Your task to perform on an android device: Search for sushi restaurants on Maps Image 0: 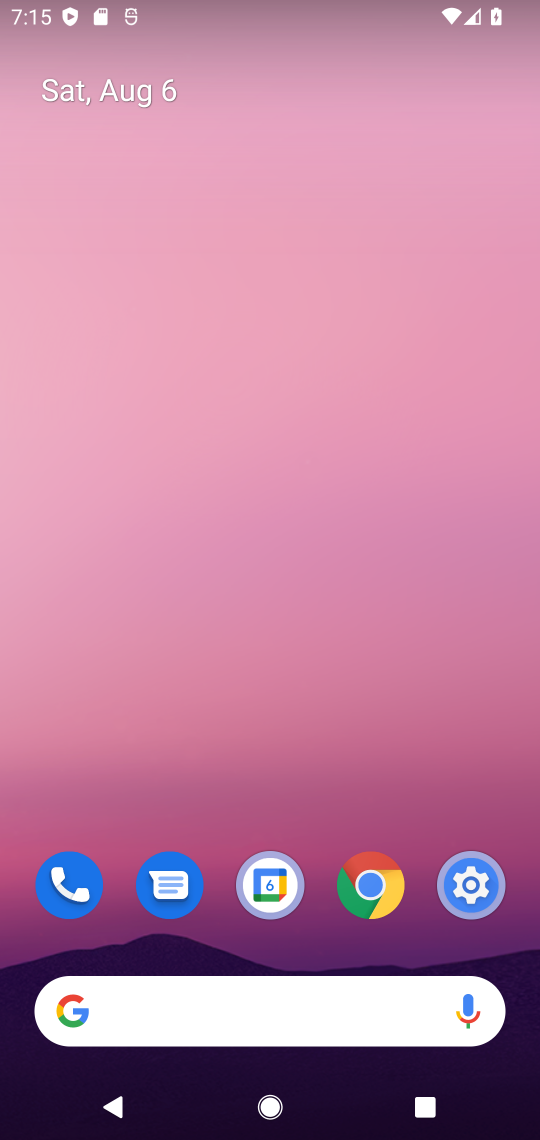
Step 0: drag from (176, 888) to (19, 773)
Your task to perform on an android device: Search for sushi restaurants on Maps Image 1: 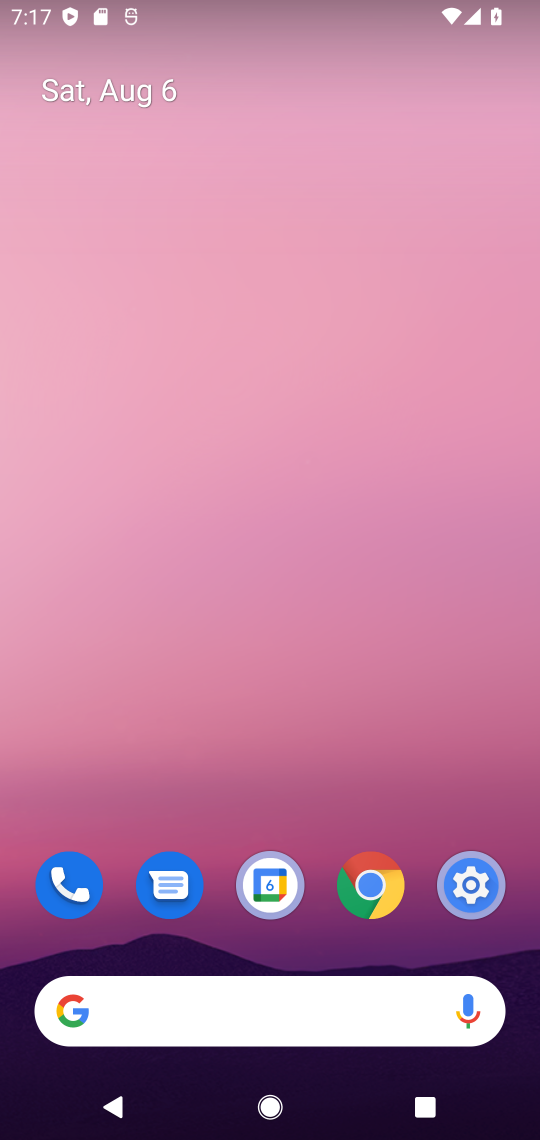
Step 1: drag from (318, 810) to (248, 0)
Your task to perform on an android device: Search for sushi restaurants on Maps Image 2: 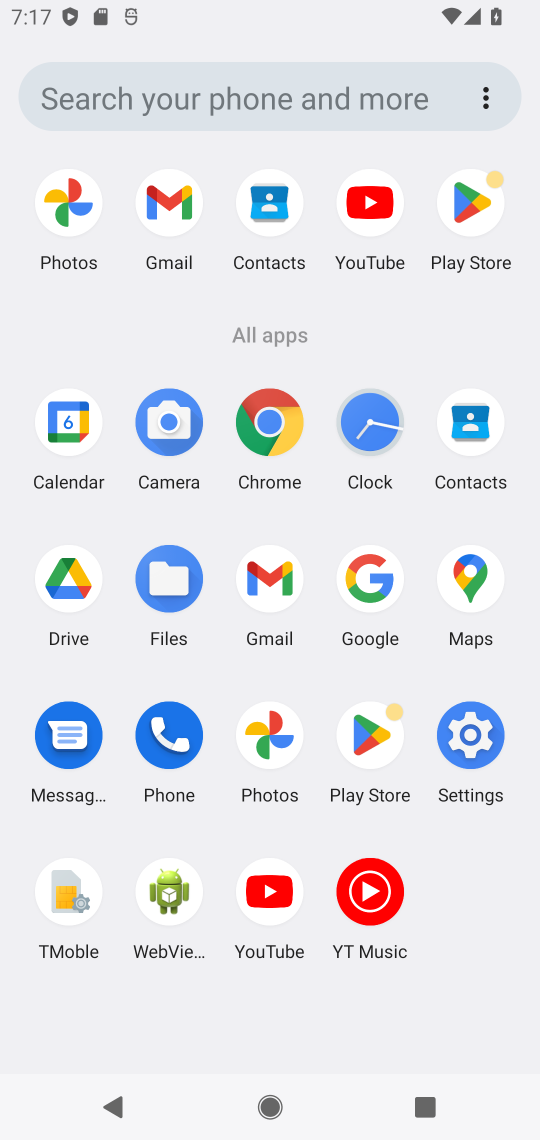
Step 2: click (456, 586)
Your task to perform on an android device: Search for sushi restaurants on Maps Image 3: 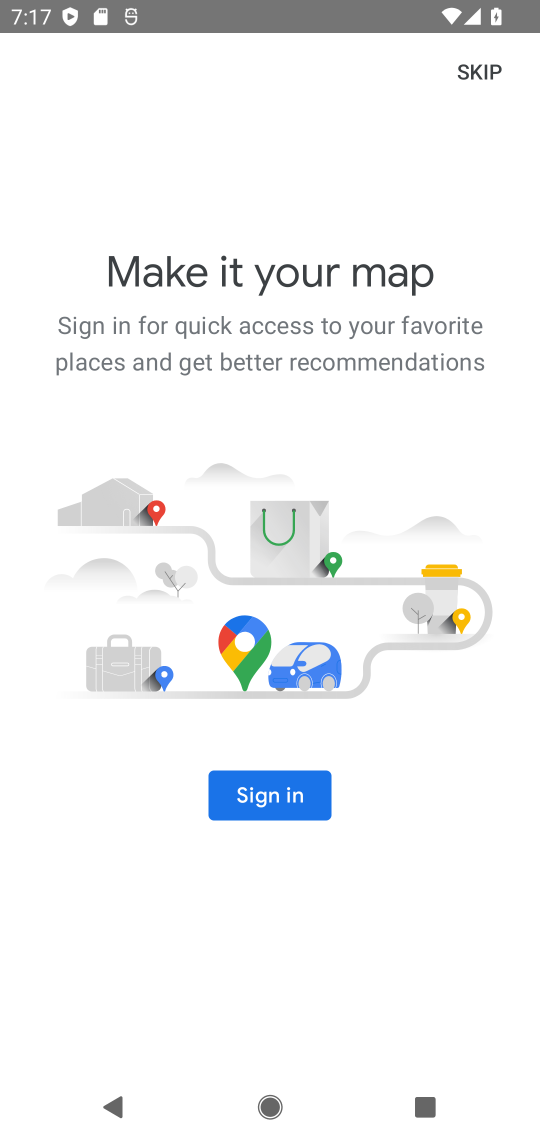
Step 3: task complete